Your task to perform on an android device: Check the weather Image 0: 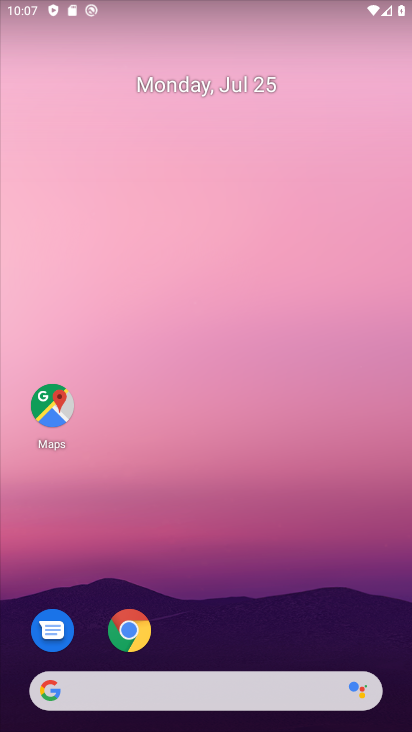
Step 0: drag from (258, 444) to (164, 0)
Your task to perform on an android device: Check the weather Image 1: 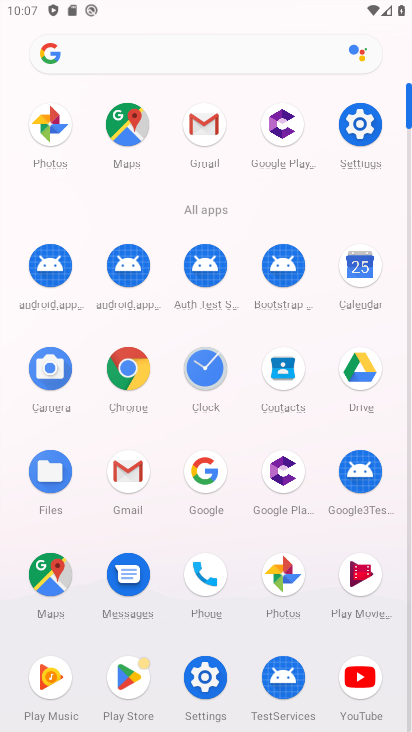
Step 1: click (126, 368)
Your task to perform on an android device: Check the weather Image 2: 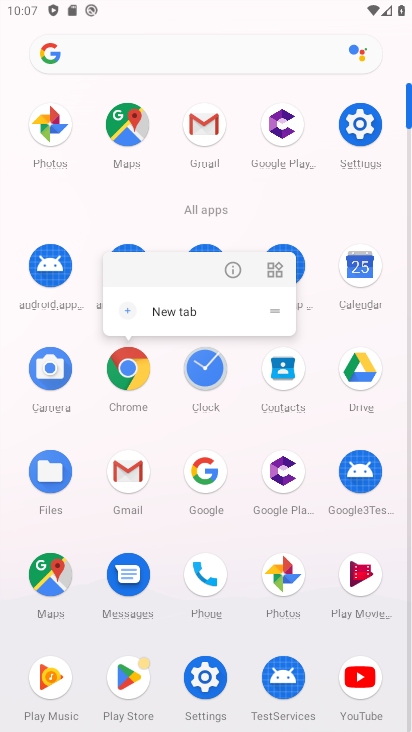
Step 2: click (131, 366)
Your task to perform on an android device: Check the weather Image 3: 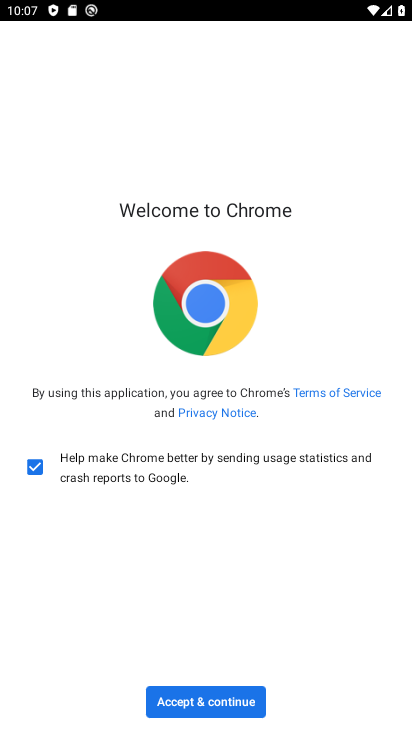
Step 3: click (214, 706)
Your task to perform on an android device: Check the weather Image 4: 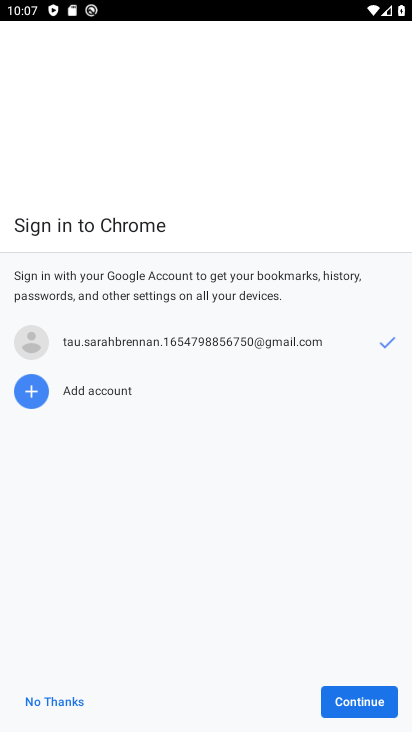
Step 4: click (371, 706)
Your task to perform on an android device: Check the weather Image 5: 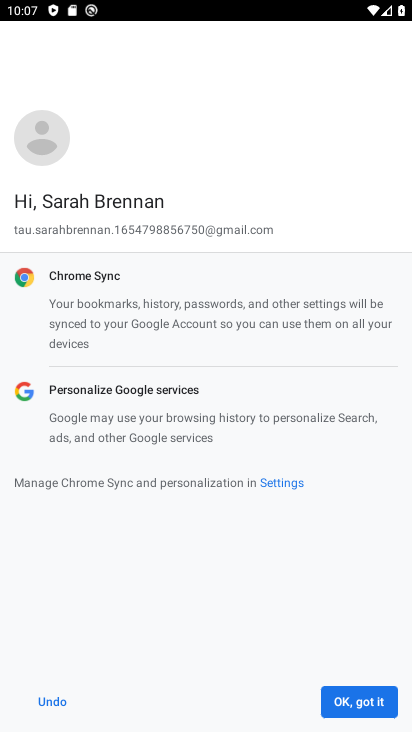
Step 5: click (371, 706)
Your task to perform on an android device: Check the weather Image 6: 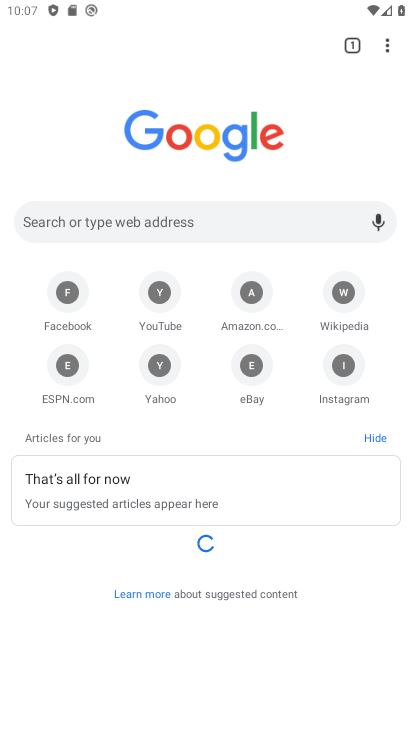
Step 6: click (226, 224)
Your task to perform on an android device: Check the weather Image 7: 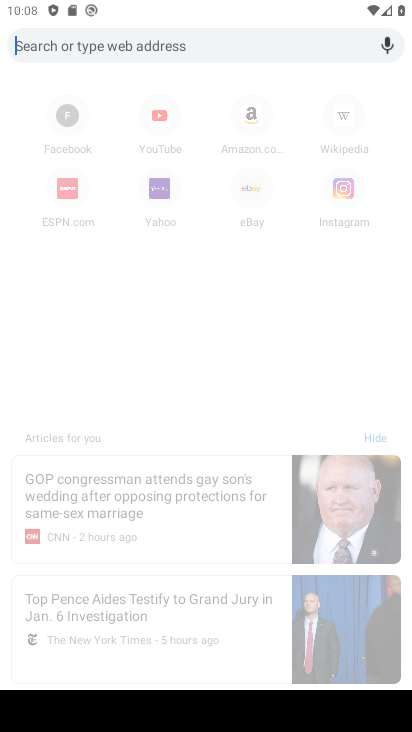
Step 7: type "weather"
Your task to perform on an android device: Check the weather Image 8: 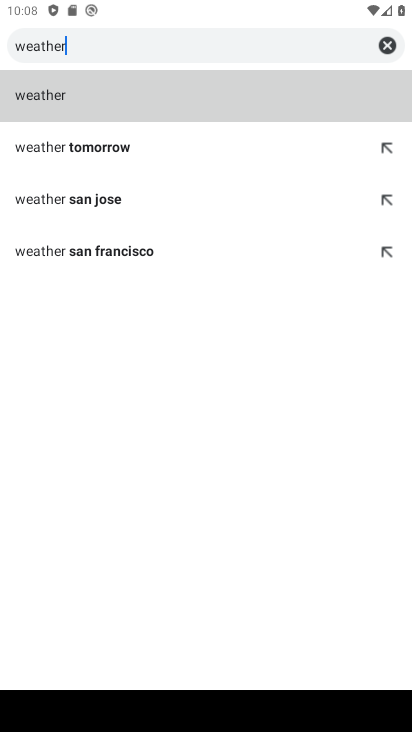
Step 8: click (57, 99)
Your task to perform on an android device: Check the weather Image 9: 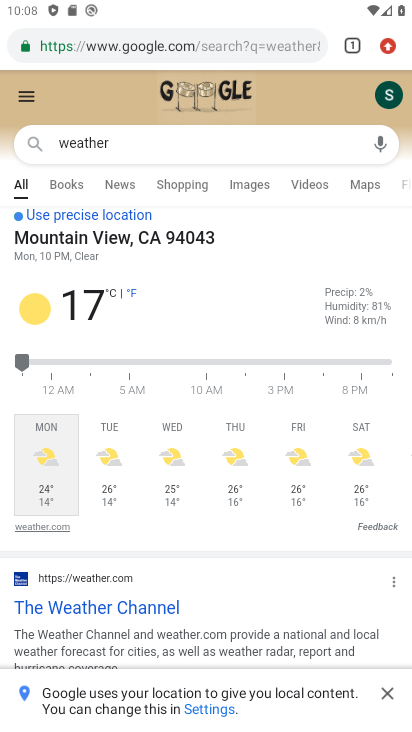
Step 9: task complete